Your task to perform on an android device: Play the last video I watched on Youtube Image 0: 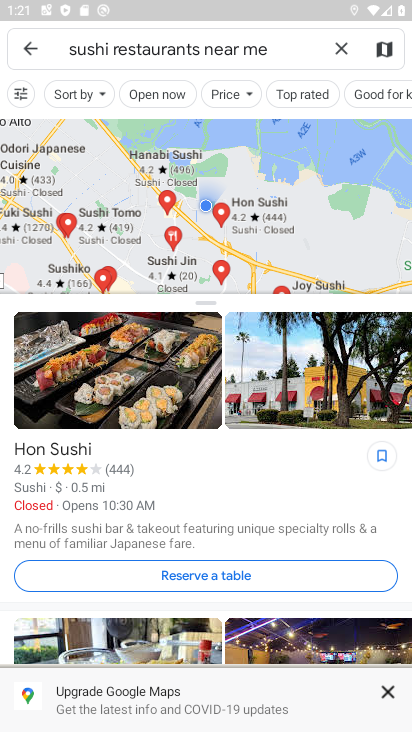
Step 0: press home button
Your task to perform on an android device: Play the last video I watched on Youtube Image 1: 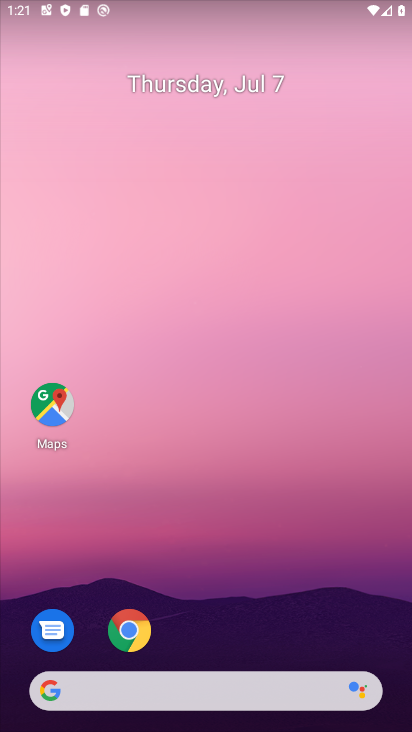
Step 1: drag from (235, 615) to (174, 95)
Your task to perform on an android device: Play the last video I watched on Youtube Image 2: 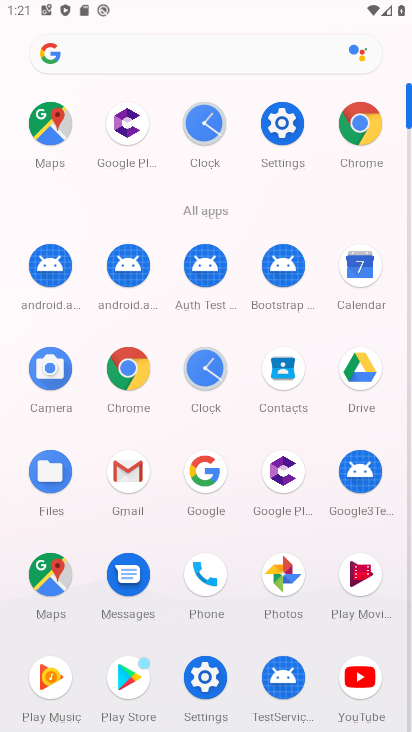
Step 2: click (354, 685)
Your task to perform on an android device: Play the last video I watched on Youtube Image 3: 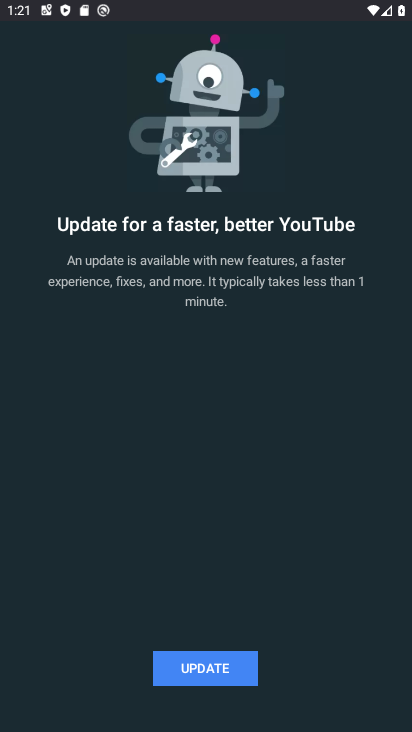
Step 3: click (199, 676)
Your task to perform on an android device: Play the last video I watched on Youtube Image 4: 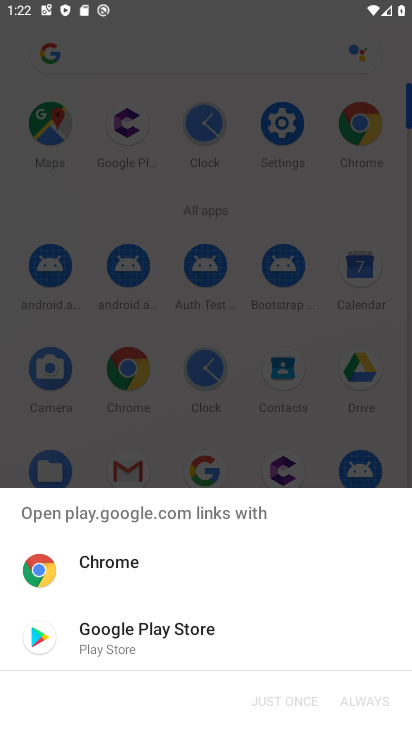
Step 4: click (222, 642)
Your task to perform on an android device: Play the last video I watched on Youtube Image 5: 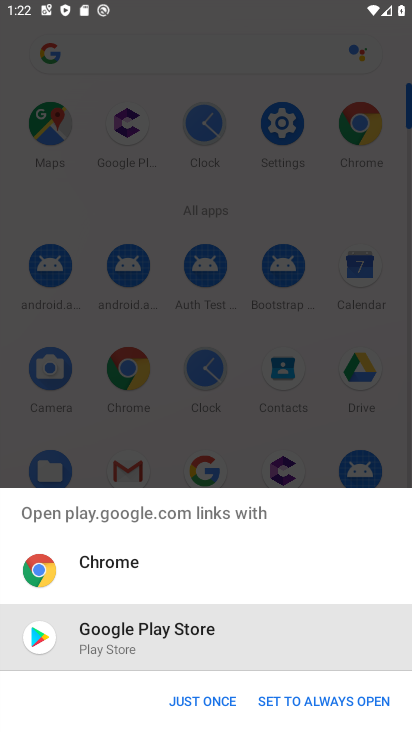
Step 5: click (213, 697)
Your task to perform on an android device: Play the last video I watched on Youtube Image 6: 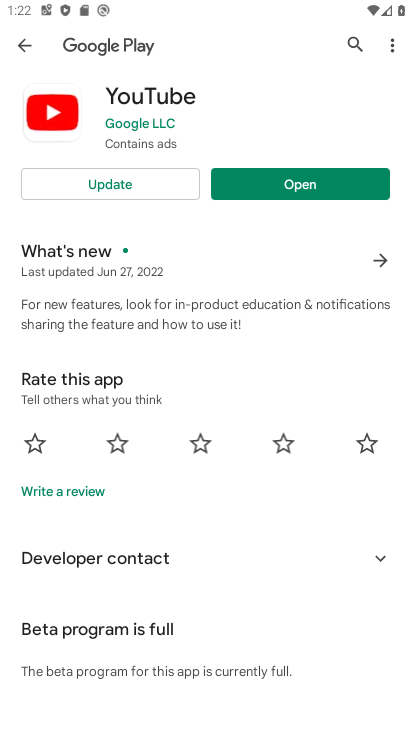
Step 6: click (122, 175)
Your task to perform on an android device: Play the last video I watched on Youtube Image 7: 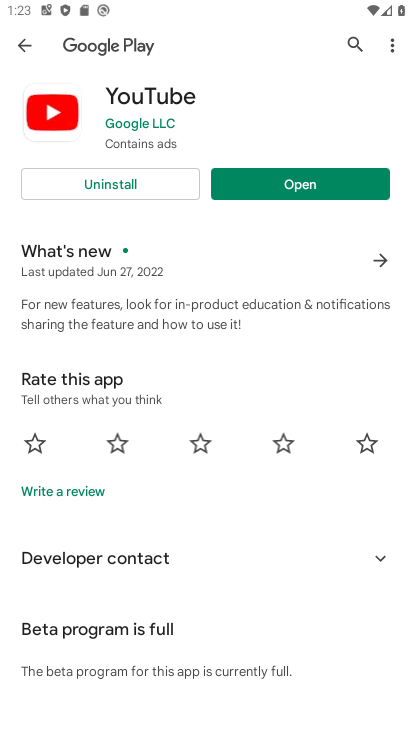
Step 7: click (333, 192)
Your task to perform on an android device: Play the last video I watched on Youtube Image 8: 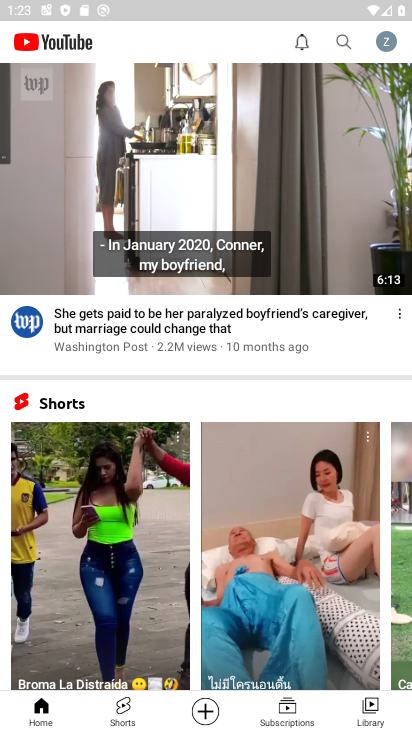
Step 8: task complete